Your task to perform on an android device: toggle notification dots Image 0: 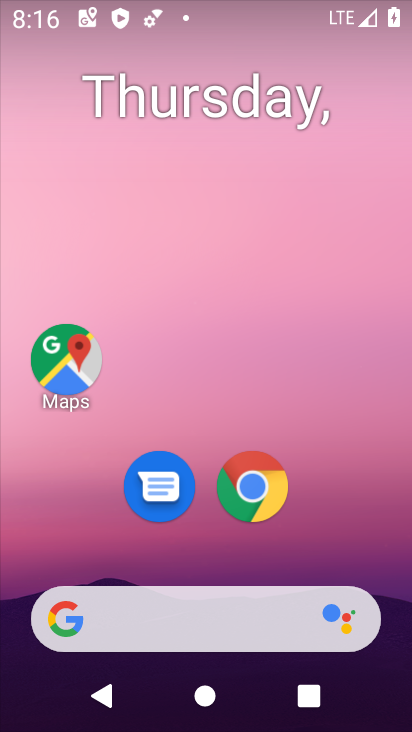
Step 0: drag from (212, 661) to (306, 98)
Your task to perform on an android device: toggle notification dots Image 1: 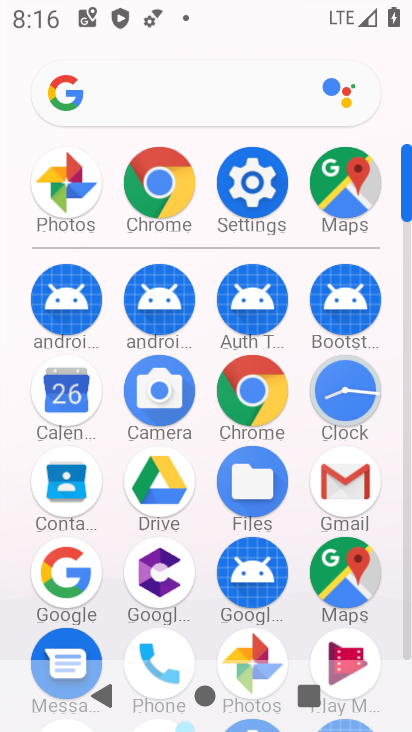
Step 1: click (252, 209)
Your task to perform on an android device: toggle notification dots Image 2: 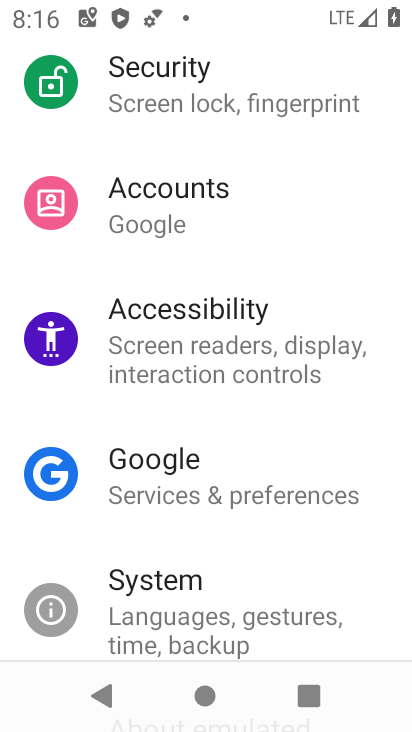
Step 2: drag from (253, 236) to (240, 624)
Your task to perform on an android device: toggle notification dots Image 3: 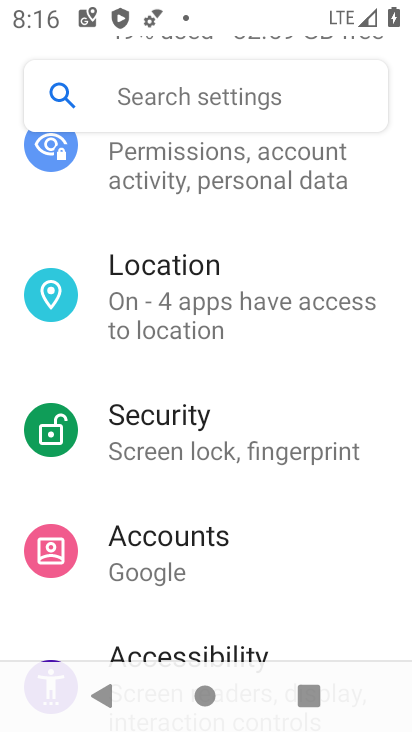
Step 3: drag from (269, 280) to (234, 696)
Your task to perform on an android device: toggle notification dots Image 4: 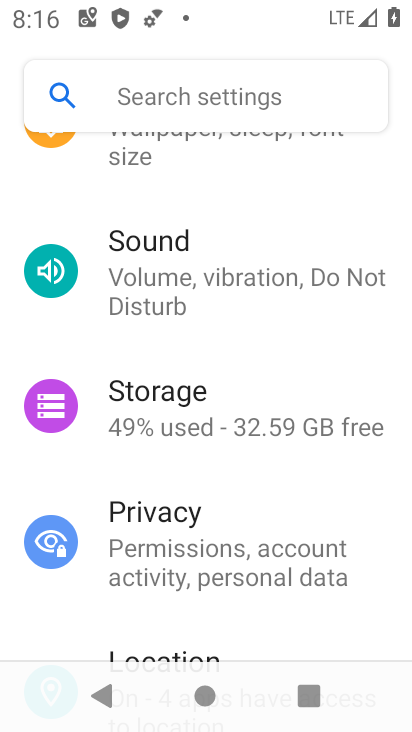
Step 4: drag from (255, 347) to (214, 671)
Your task to perform on an android device: toggle notification dots Image 5: 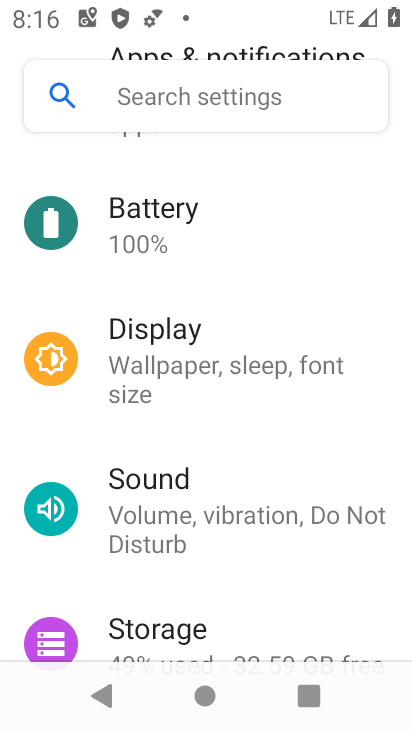
Step 5: drag from (248, 365) to (208, 703)
Your task to perform on an android device: toggle notification dots Image 6: 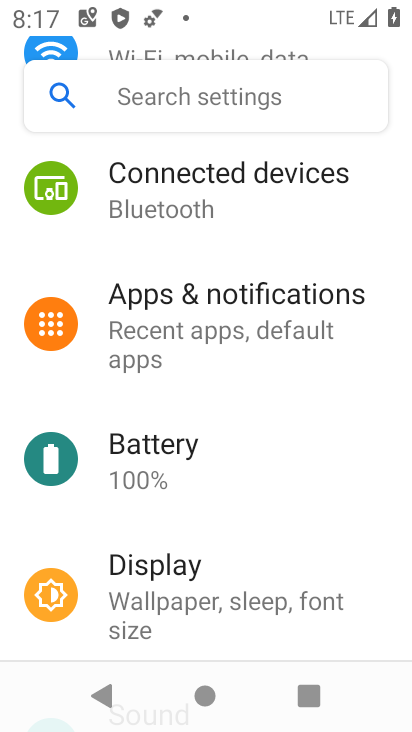
Step 6: click (228, 343)
Your task to perform on an android device: toggle notification dots Image 7: 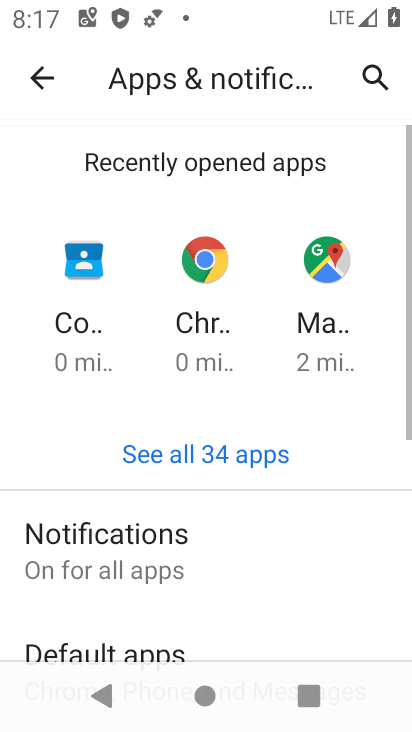
Step 7: click (176, 563)
Your task to perform on an android device: toggle notification dots Image 8: 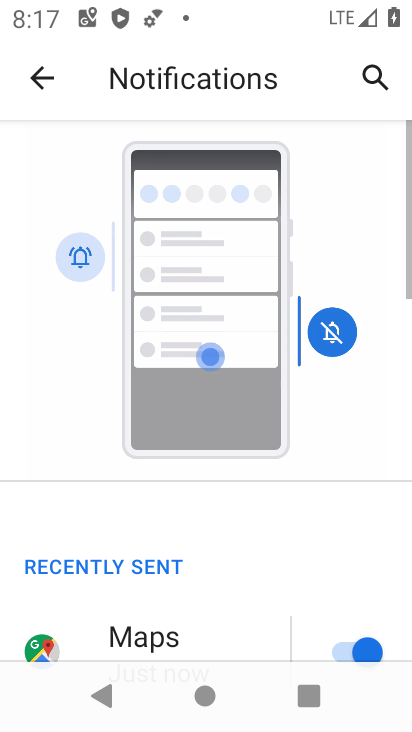
Step 8: drag from (180, 525) to (240, 167)
Your task to perform on an android device: toggle notification dots Image 9: 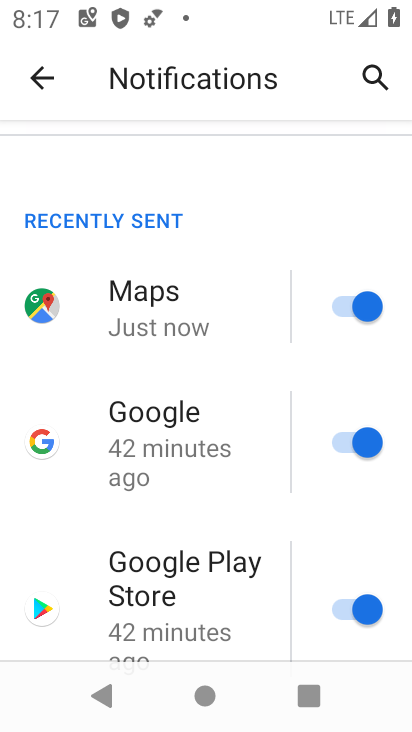
Step 9: drag from (149, 567) to (184, 246)
Your task to perform on an android device: toggle notification dots Image 10: 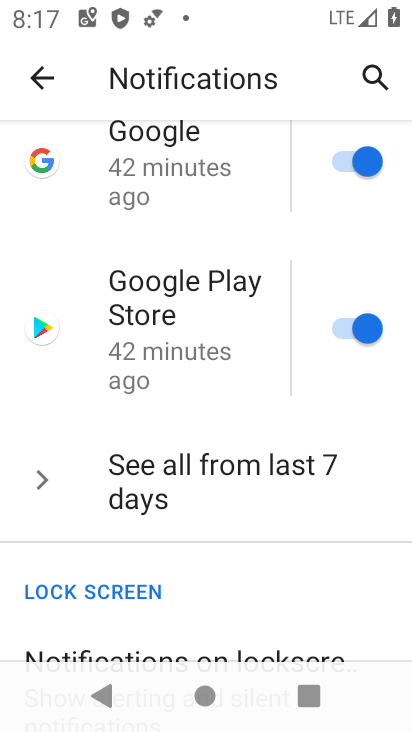
Step 10: drag from (142, 544) to (211, 268)
Your task to perform on an android device: toggle notification dots Image 11: 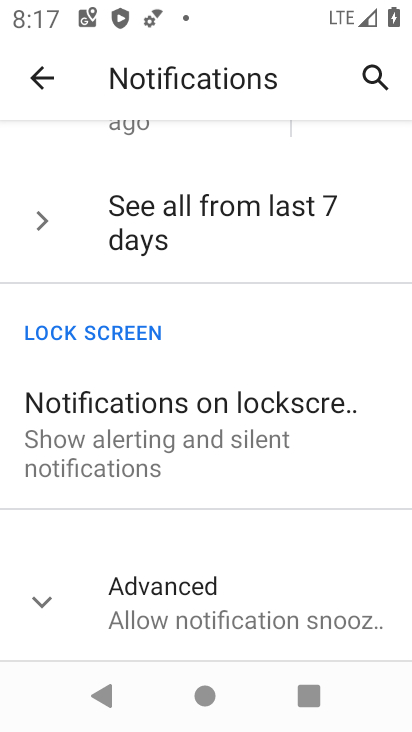
Step 11: click (228, 447)
Your task to perform on an android device: toggle notification dots Image 12: 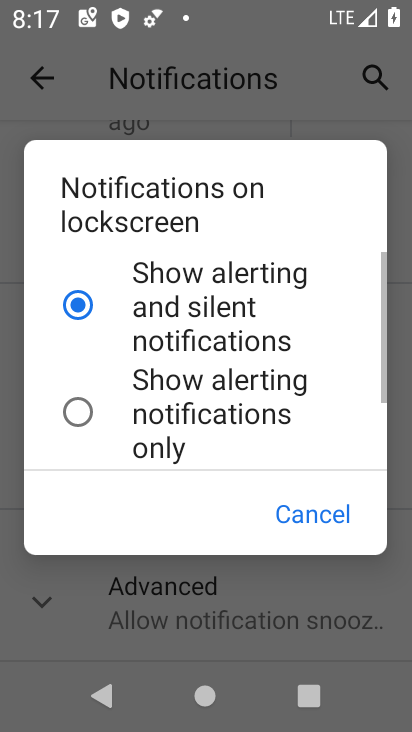
Step 12: drag from (228, 447) to (228, 323)
Your task to perform on an android device: toggle notification dots Image 13: 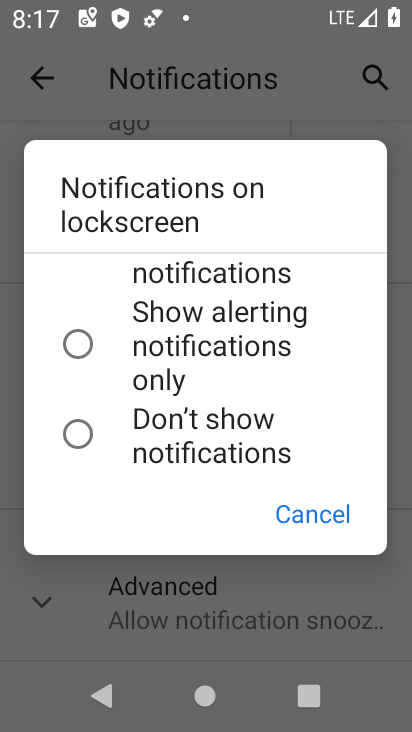
Step 13: drag from (225, 430) to (224, 278)
Your task to perform on an android device: toggle notification dots Image 14: 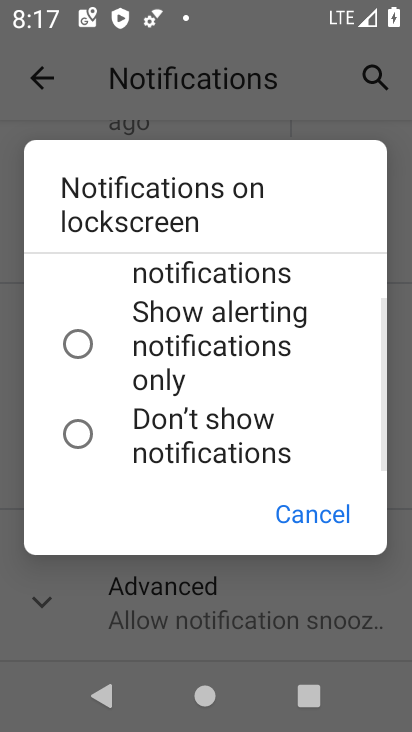
Step 14: click (294, 526)
Your task to perform on an android device: toggle notification dots Image 15: 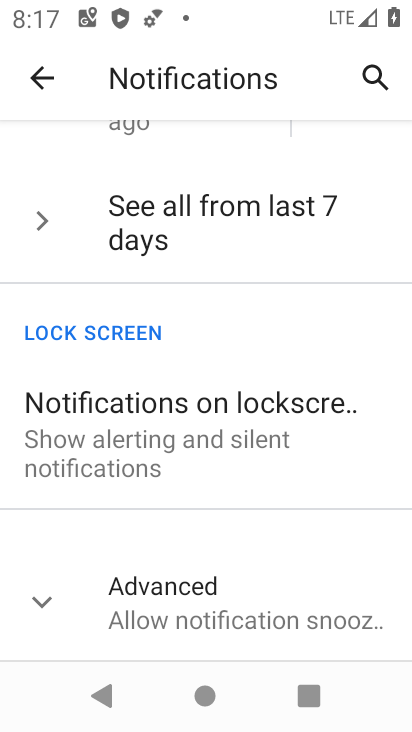
Step 15: click (229, 619)
Your task to perform on an android device: toggle notification dots Image 16: 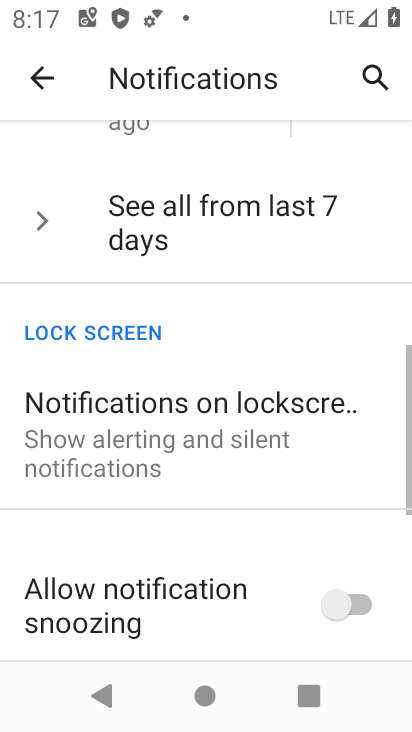
Step 16: drag from (241, 588) to (277, 258)
Your task to perform on an android device: toggle notification dots Image 17: 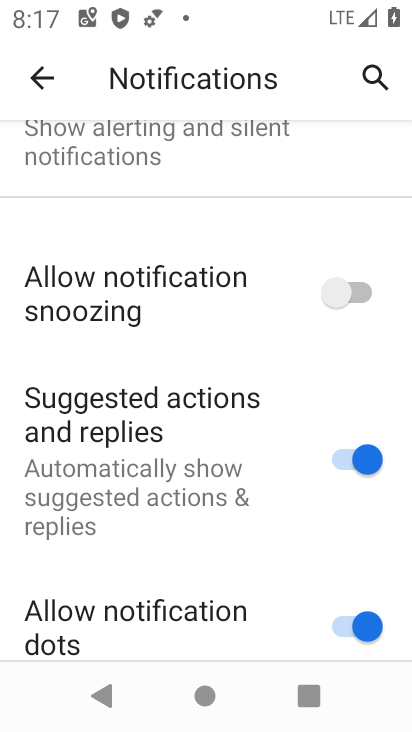
Step 17: drag from (211, 522) to (251, 356)
Your task to perform on an android device: toggle notification dots Image 18: 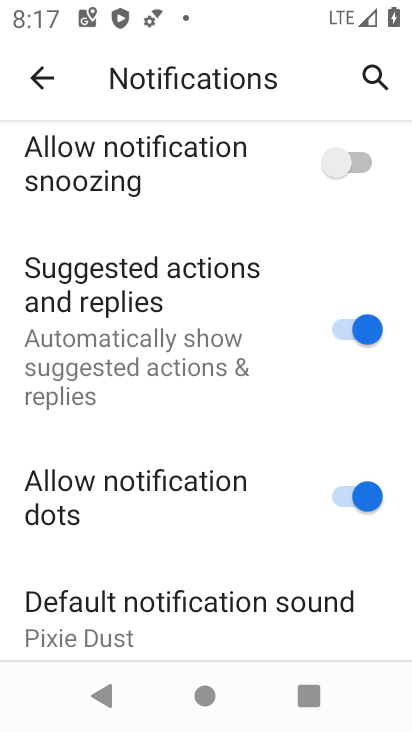
Step 18: click (336, 517)
Your task to perform on an android device: toggle notification dots Image 19: 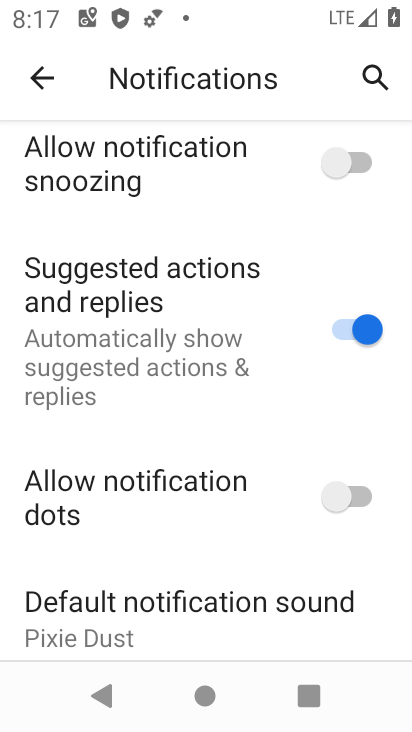
Step 19: task complete